Your task to perform on an android device: Open Android settings Image 0: 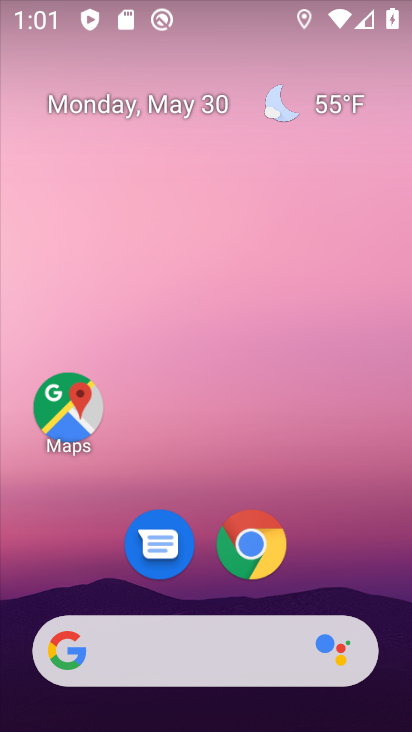
Step 0: drag from (367, 588) to (331, 9)
Your task to perform on an android device: Open Android settings Image 1: 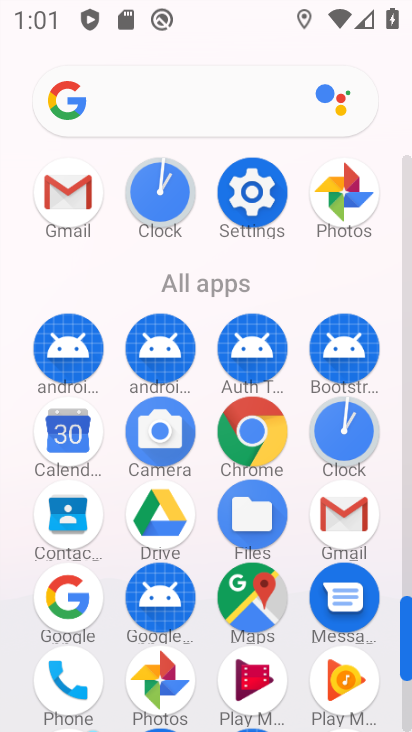
Step 1: click (255, 188)
Your task to perform on an android device: Open Android settings Image 2: 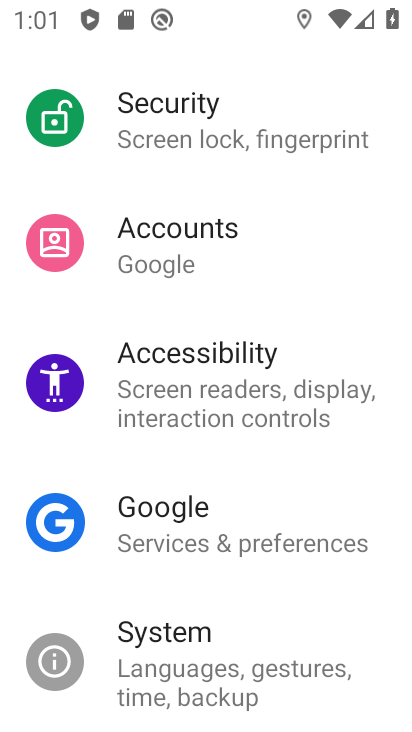
Step 2: drag from (252, 603) to (218, 56)
Your task to perform on an android device: Open Android settings Image 3: 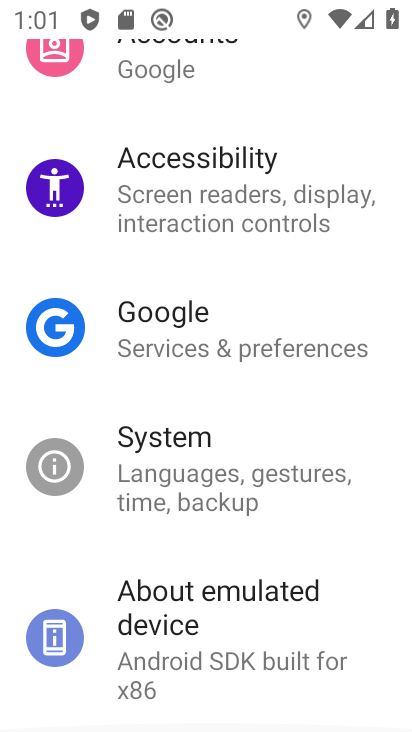
Step 3: drag from (195, 652) to (180, 221)
Your task to perform on an android device: Open Android settings Image 4: 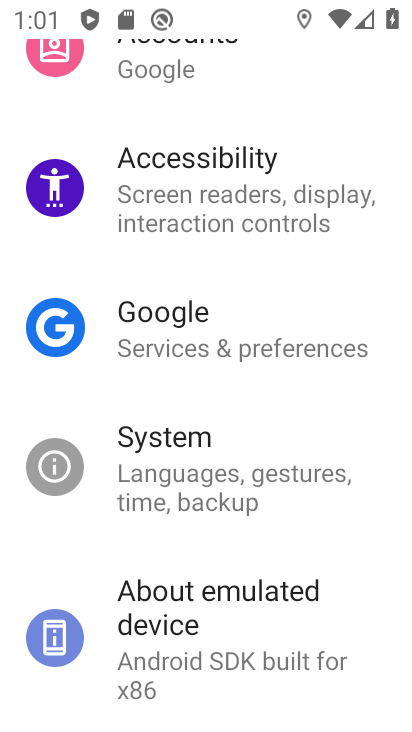
Step 4: click (151, 599)
Your task to perform on an android device: Open Android settings Image 5: 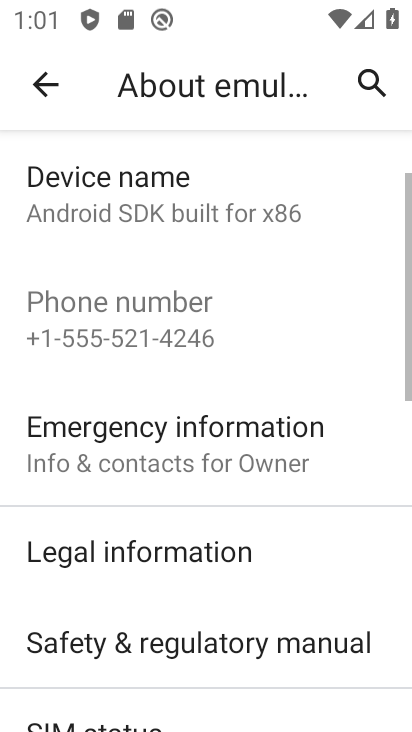
Step 5: drag from (188, 570) to (179, 283)
Your task to perform on an android device: Open Android settings Image 6: 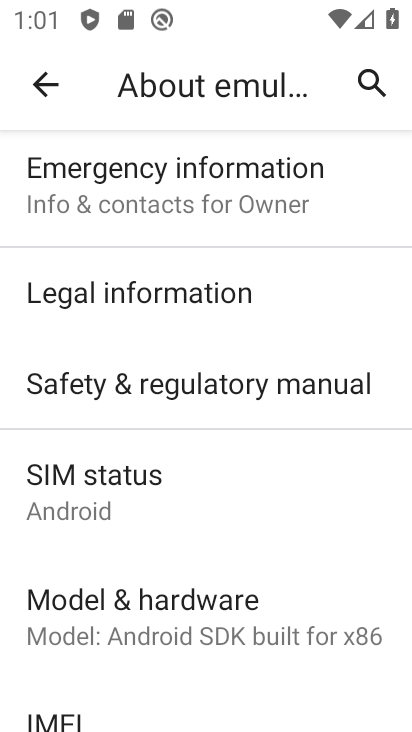
Step 6: drag from (182, 695) to (184, 348)
Your task to perform on an android device: Open Android settings Image 7: 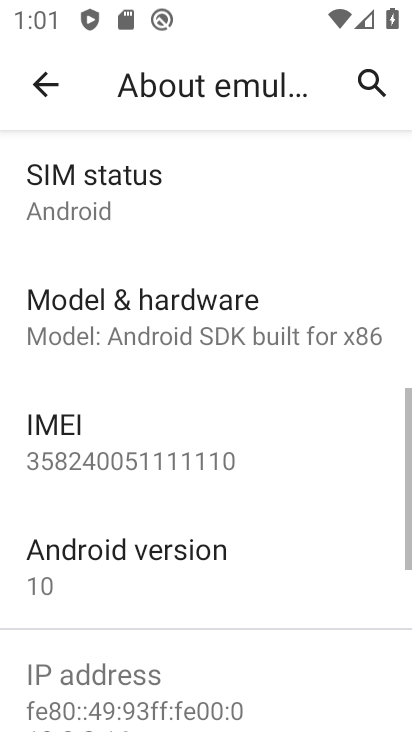
Step 7: click (182, 558)
Your task to perform on an android device: Open Android settings Image 8: 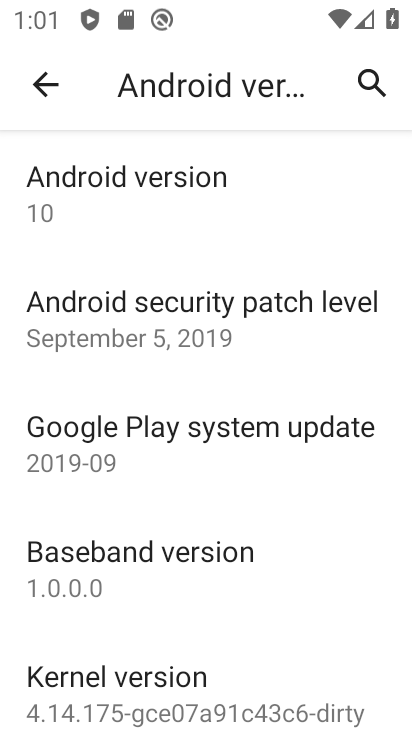
Step 8: task complete